Your task to perform on an android device: Go to Yahoo.com Image 0: 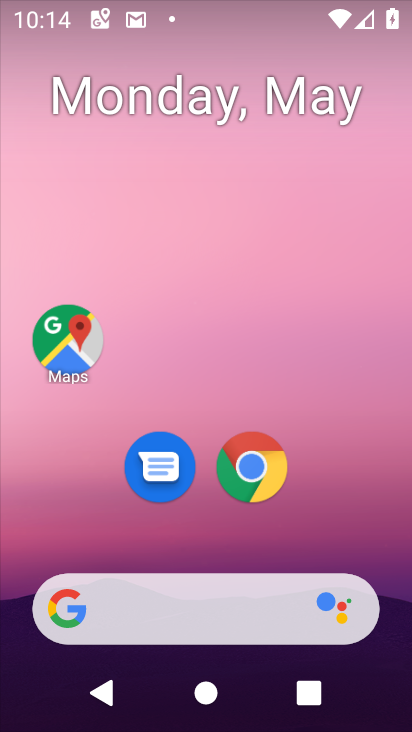
Step 0: click (248, 461)
Your task to perform on an android device: Go to Yahoo.com Image 1: 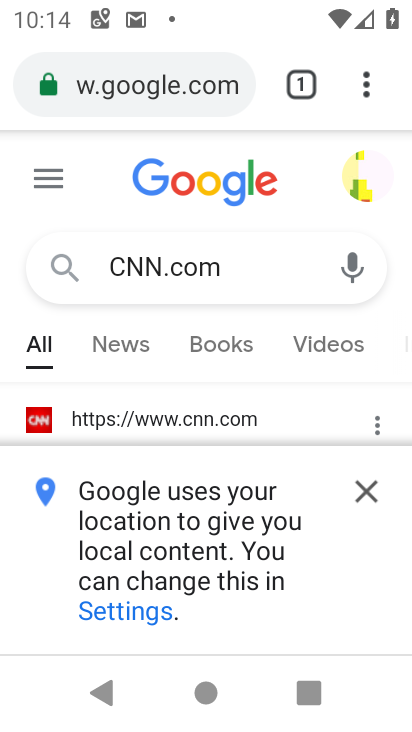
Step 1: click (244, 87)
Your task to perform on an android device: Go to Yahoo.com Image 2: 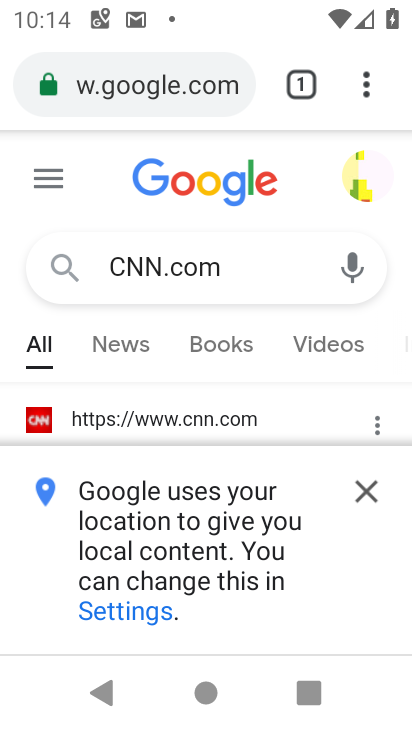
Step 2: click (230, 82)
Your task to perform on an android device: Go to Yahoo.com Image 3: 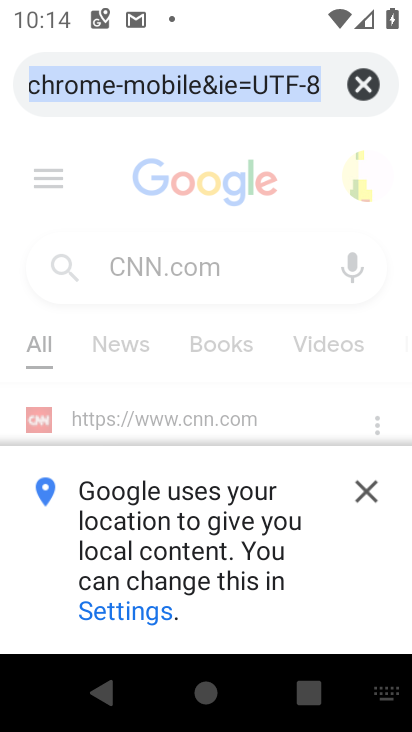
Step 3: click (357, 79)
Your task to perform on an android device: Go to Yahoo.com Image 4: 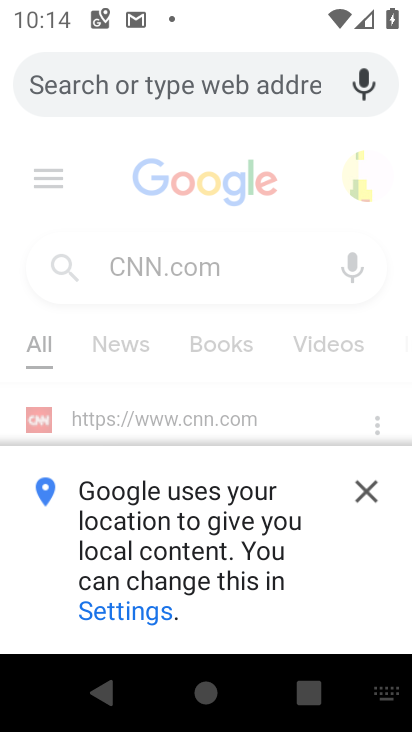
Step 4: type "Yahoo.com"
Your task to perform on an android device: Go to Yahoo.com Image 5: 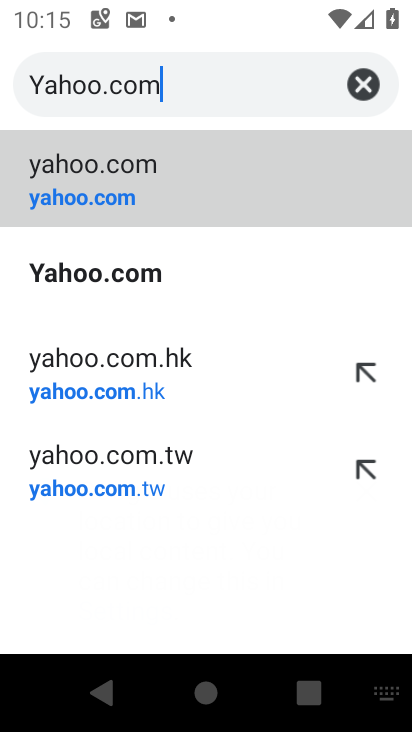
Step 5: click (87, 268)
Your task to perform on an android device: Go to Yahoo.com Image 6: 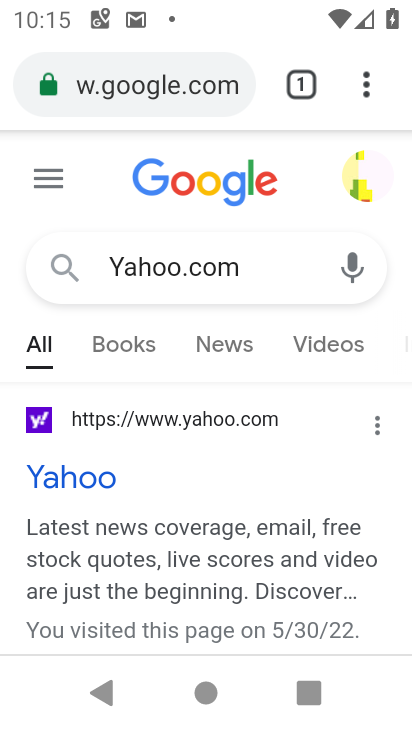
Step 6: task complete